Your task to perform on an android device: turn smart compose on in the gmail app Image 0: 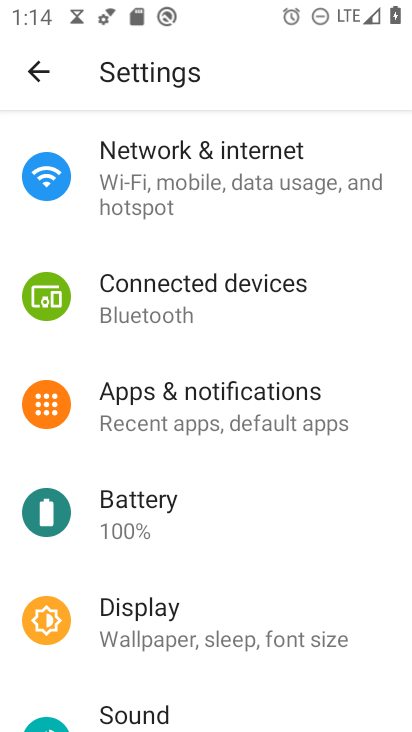
Step 0: press home button
Your task to perform on an android device: turn smart compose on in the gmail app Image 1: 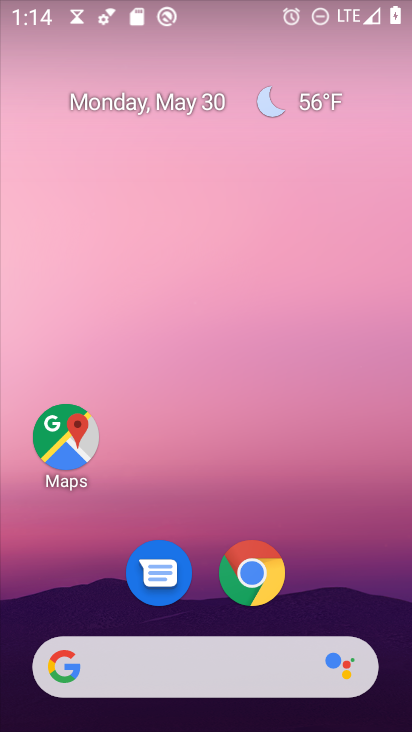
Step 1: drag from (302, 631) to (324, 7)
Your task to perform on an android device: turn smart compose on in the gmail app Image 2: 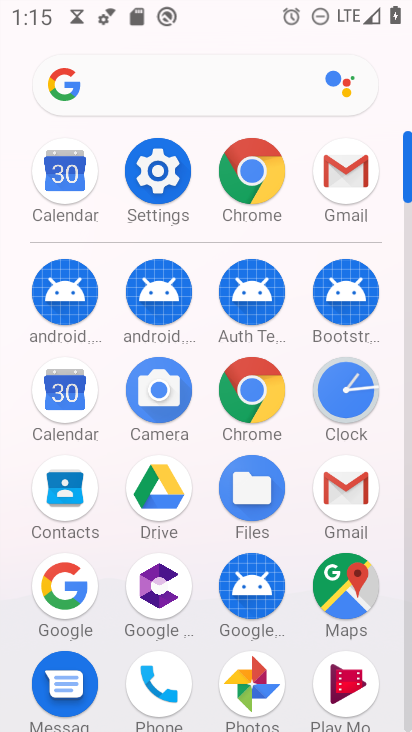
Step 2: click (339, 484)
Your task to perform on an android device: turn smart compose on in the gmail app Image 3: 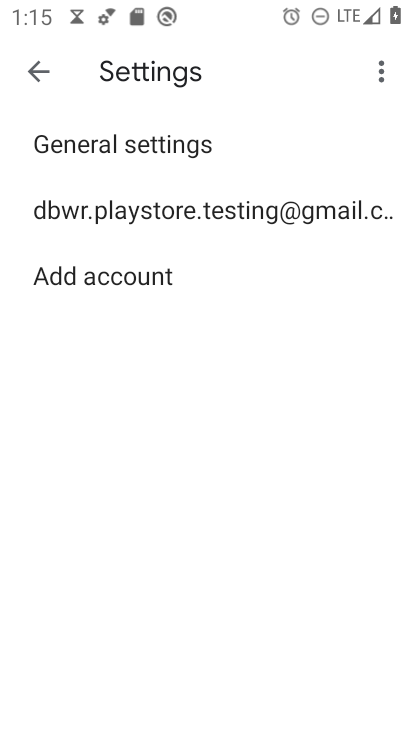
Step 3: press back button
Your task to perform on an android device: turn smart compose on in the gmail app Image 4: 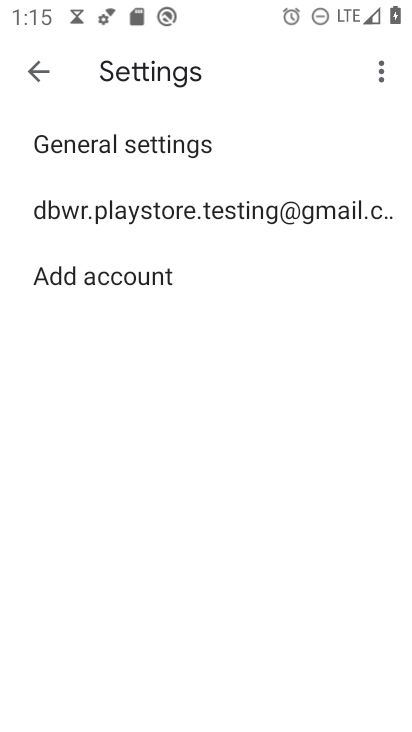
Step 4: press back button
Your task to perform on an android device: turn smart compose on in the gmail app Image 5: 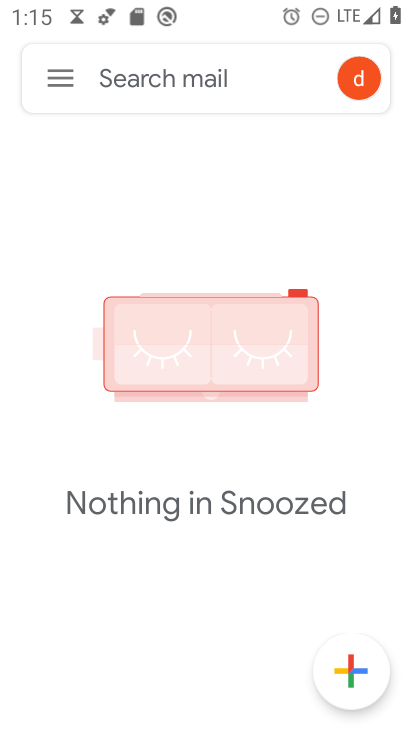
Step 5: click (53, 72)
Your task to perform on an android device: turn smart compose on in the gmail app Image 6: 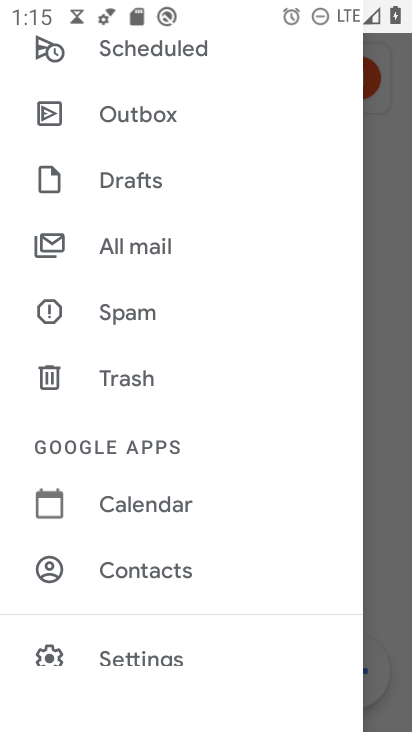
Step 6: click (191, 658)
Your task to perform on an android device: turn smart compose on in the gmail app Image 7: 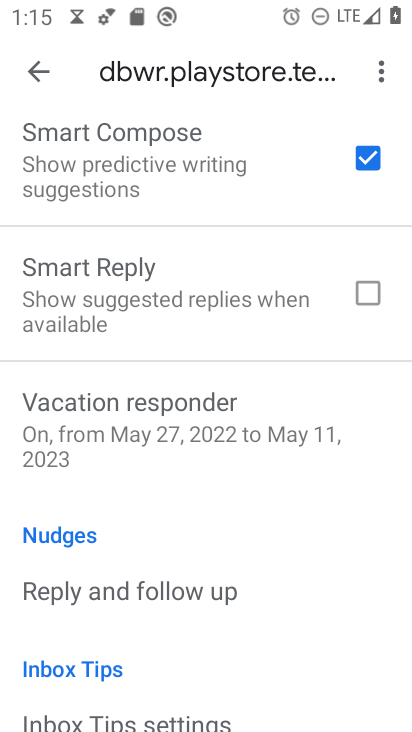
Step 7: task complete